Your task to perform on an android device: Turn off the flashlight Image 0: 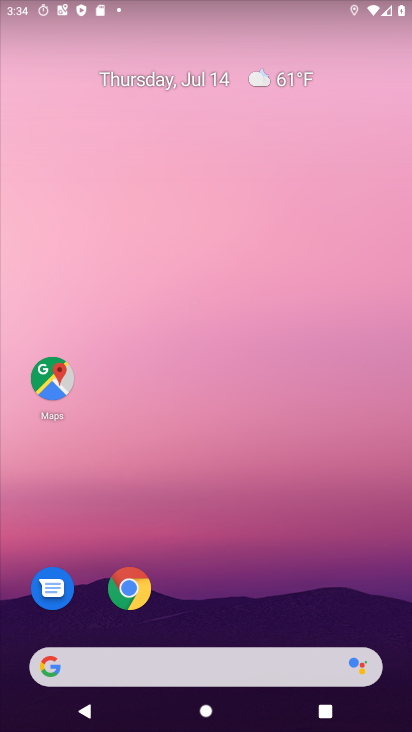
Step 0: drag from (222, 670) to (218, 271)
Your task to perform on an android device: Turn off the flashlight Image 1: 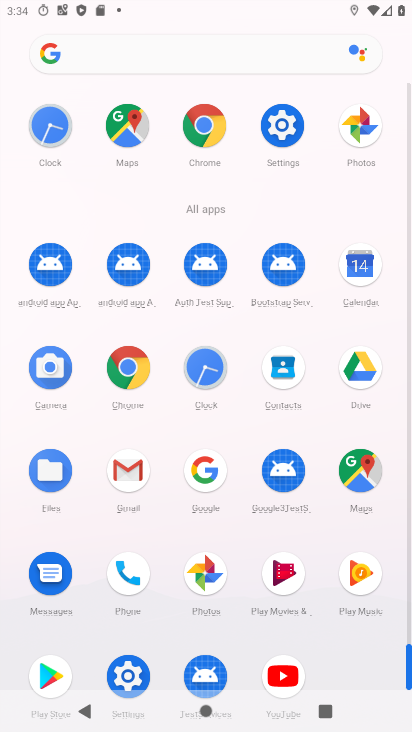
Step 1: click (279, 124)
Your task to perform on an android device: Turn off the flashlight Image 2: 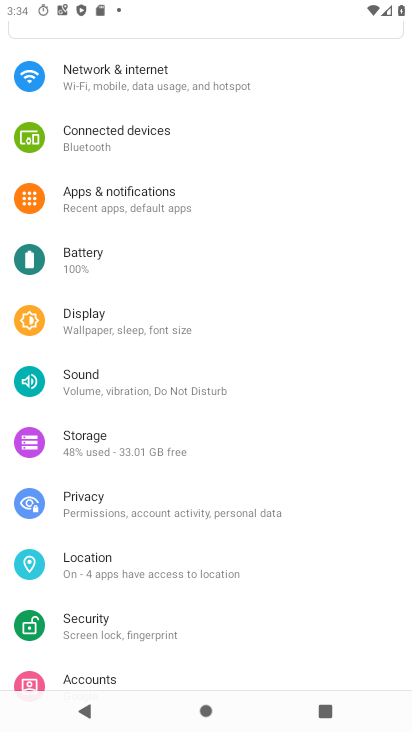
Step 2: click (142, 394)
Your task to perform on an android device: Turn off the flashlight Image 3: 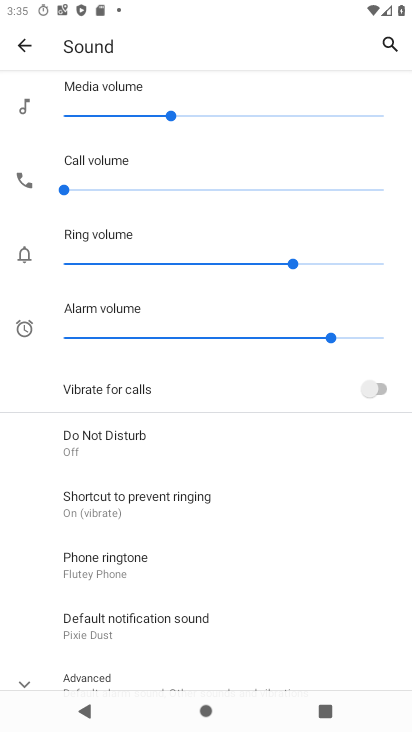
Step 3: drag from (243, 495) to (304, 290)
Your task to perform on an android device: Turn off the flashlight Image 4: 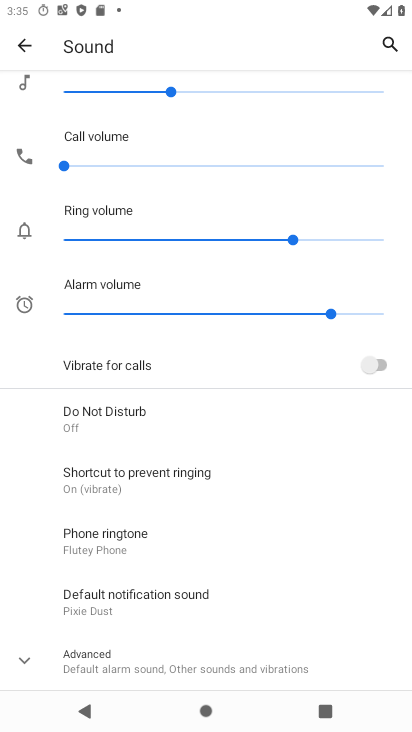
Step 4: click (225, 664)
Your task to perform on an android device: Turn off the flashlight Image 5: 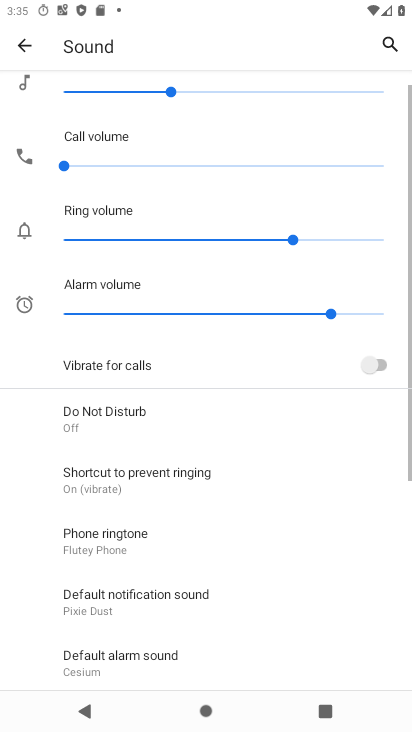
Step 5: drag from (225, 664) to (244, 540)
Your task to perform on an android device: Turn off the flashlight Image 6: 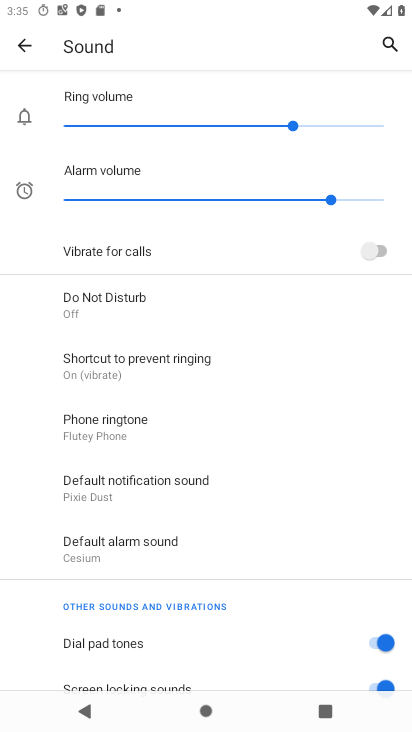
Step 6: press back button
Your task to perform on an android device: Turn off the flashlight Image 7: 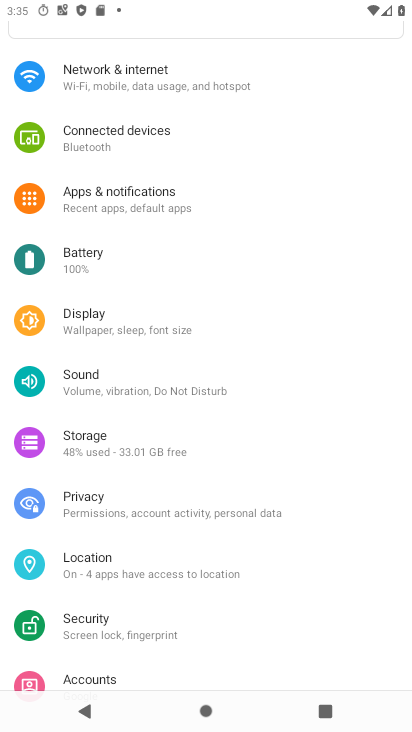
Step 7: click (166, 327)
Your task to perform on an android device: Turn off the flashlight Image 8: 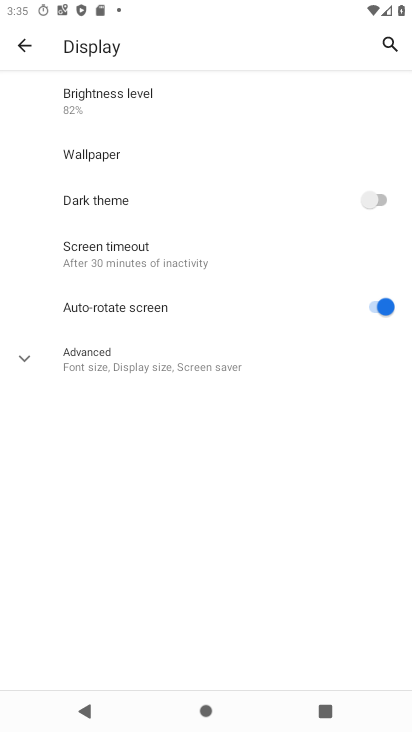
Step 8: click (143, 379)
Your task to perform on an android device: Turn off the flashlight Image 9: 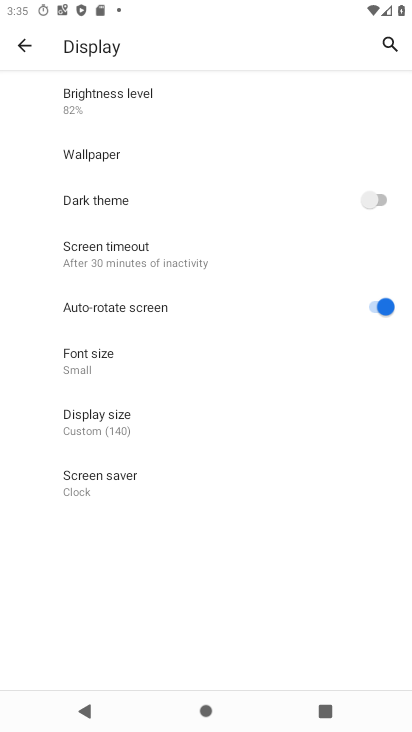
Step 9: task complete